Your task to perform on an android device: turn notification dots on Image 0: 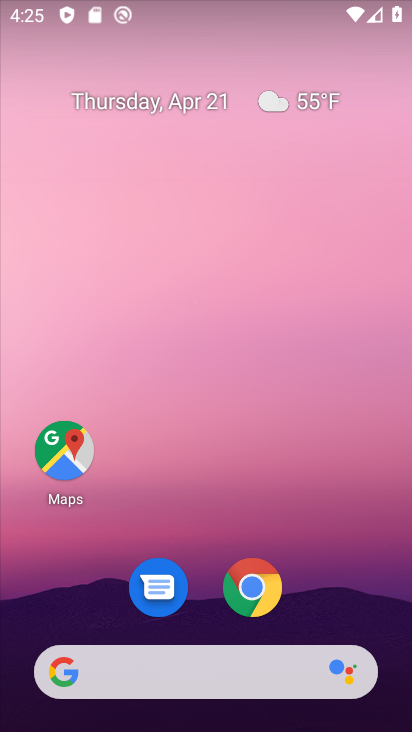
Step 0: drag from (205, 530) to (285, 102)
Your task to perform on an android device: turn notification dots on Image 1: 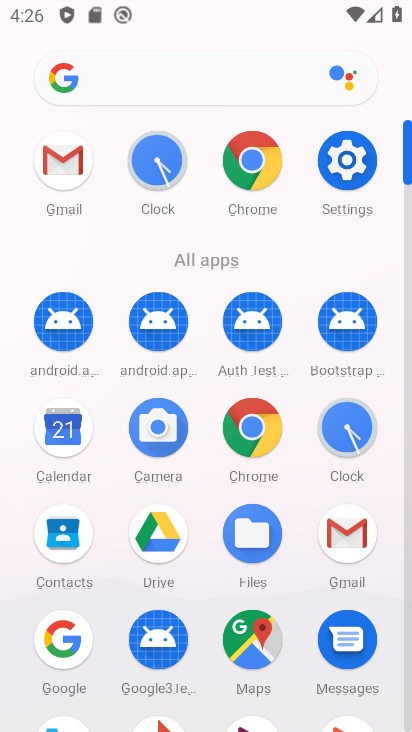
Step 1: click (349, 174)
Your task to perform on an android device: turn notification dots on Image 2: 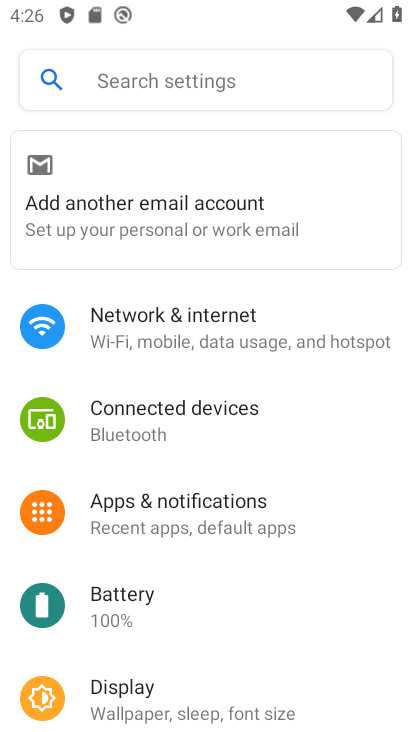
Step 2: click (243, 511)
Your task to perform on an android device: turn notification dots on Image 3: 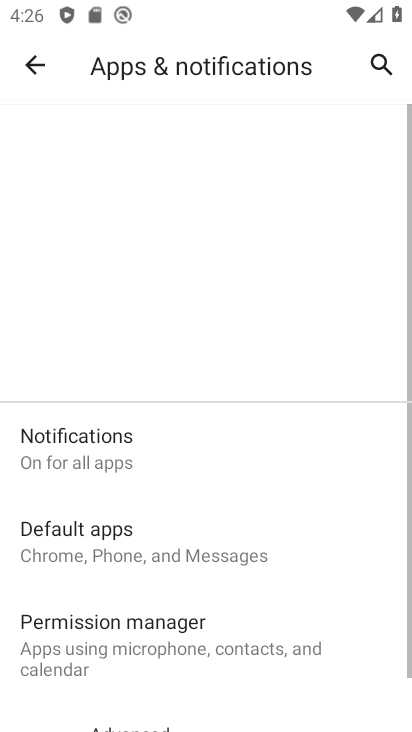
Step 3: drag from (221, 564) to (310, 197)
Your task to perform on an android device: turn notification dots on Image 4: 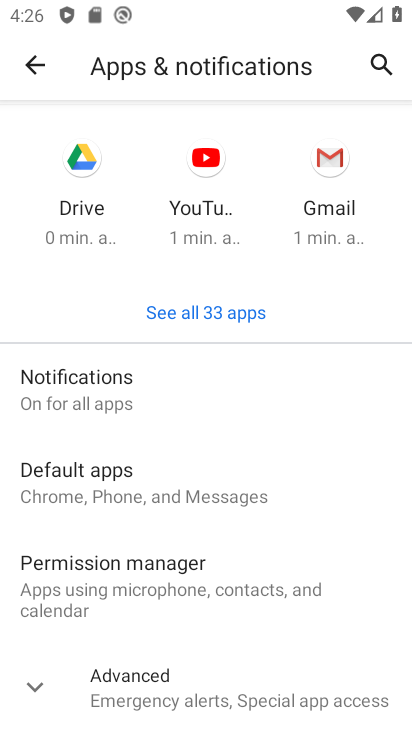
Step 4: click (195, 393)
Your task to perform on an android device: turn notification dots on Image 5: 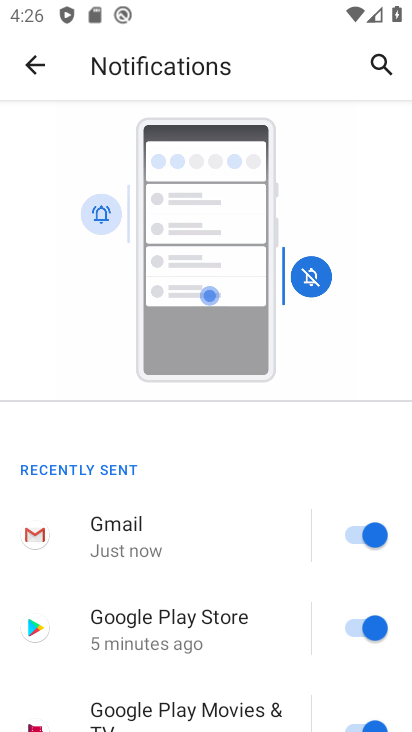
Step 5: drag from (185, 509) to (302, 88)
Your task to perform on an android device: turn notification dots on Image 6: 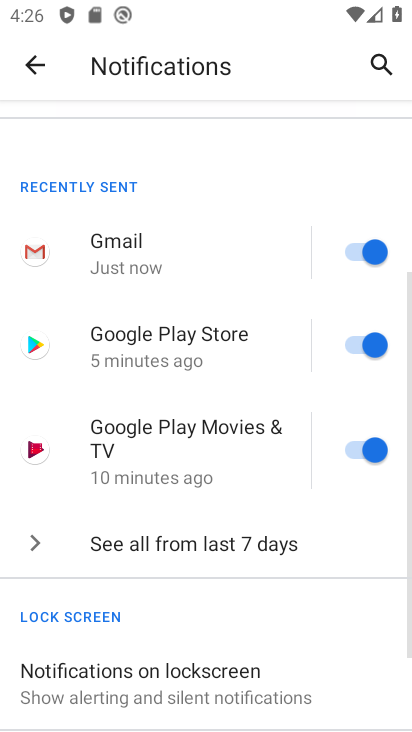
Step 6: drag from (235, 615) to (371, 198)
Your task to perform on an android device: turn notification dots on Image 7: 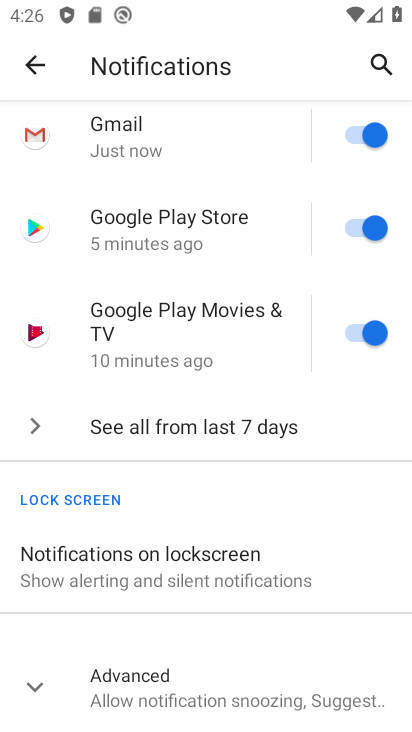
Step 7: click (268, 663)
Your task to perform on an android device: turn notification dots on Image 8: 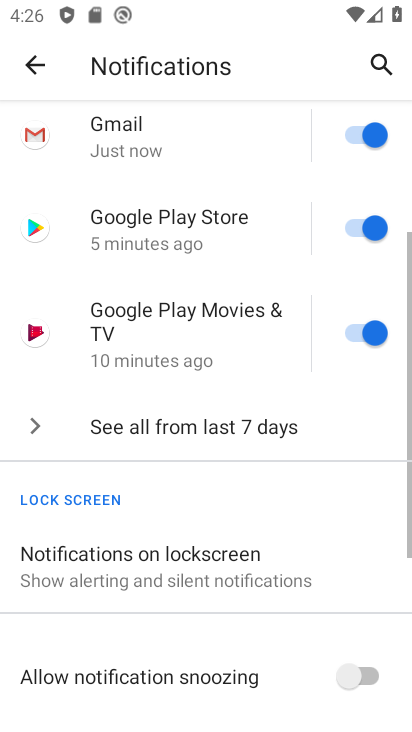
Step 8: click (376, 225)
Your task to perform on an android device: turn notification dots on Image 9: 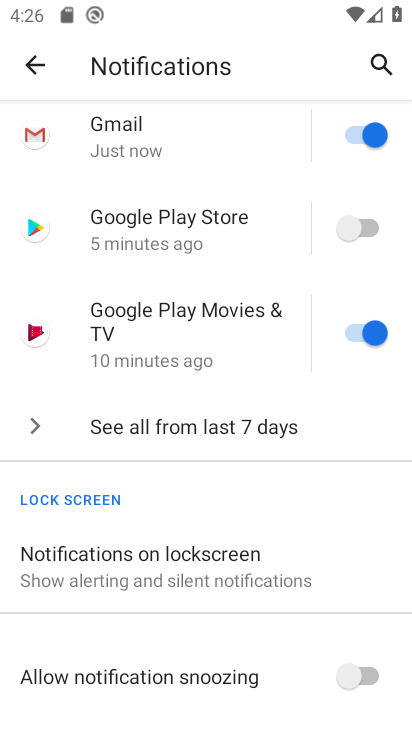
Step 9: task complete